Your task to perform on an android device: add a contact in the contacts app Image 0: 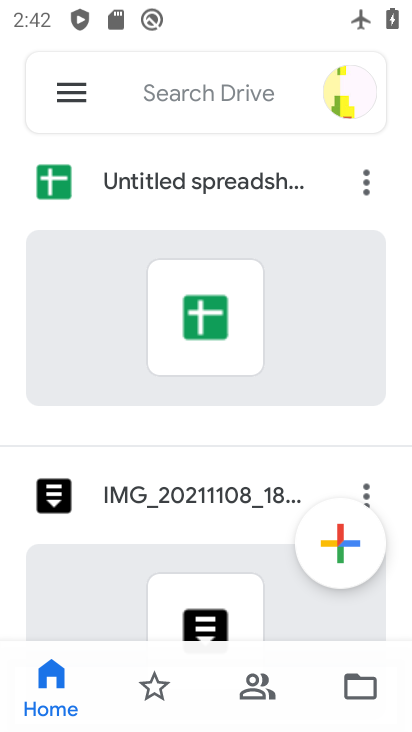
Step 0: press home button
Your task to perform on an android device: add a contact in the contacts app Image 1: 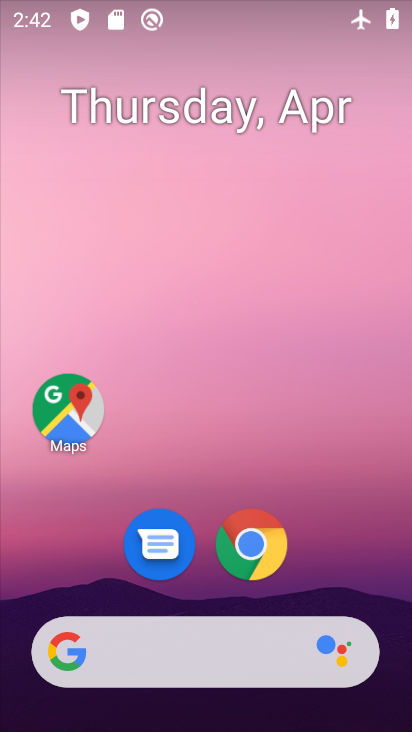
Step 1: drag from (206, 584) to (196, 48)
Your task to perform on an android device: add a contact in the contacts app Image 2: 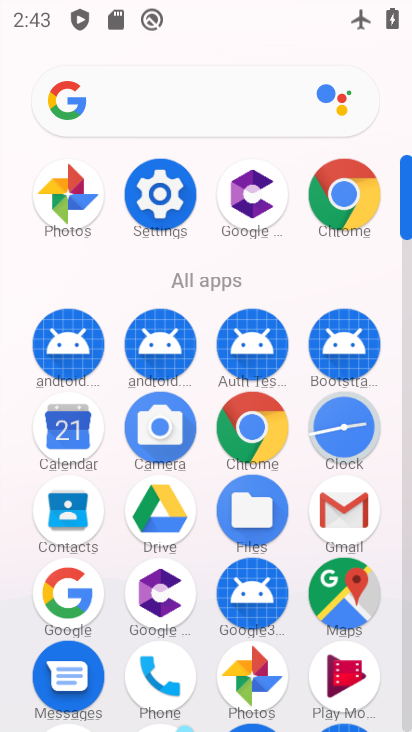
Step 2: click (64, 516)
Your task to perform on an android device: add a contact in the contacts app Image 3: 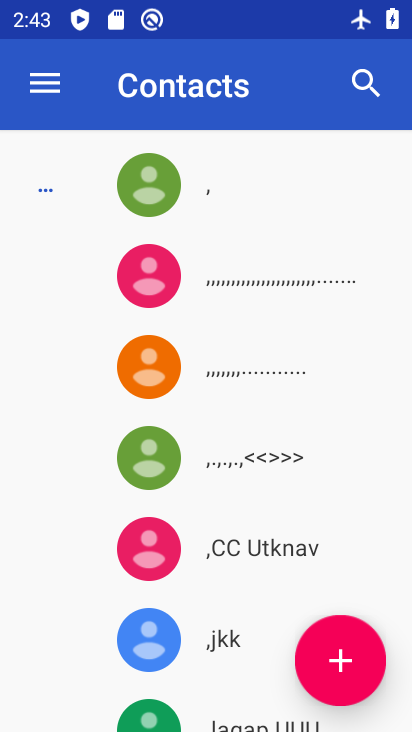
Step 3: click (334, 657)
Your task to perform on an android device: add a contact in the contacts app Image 4: 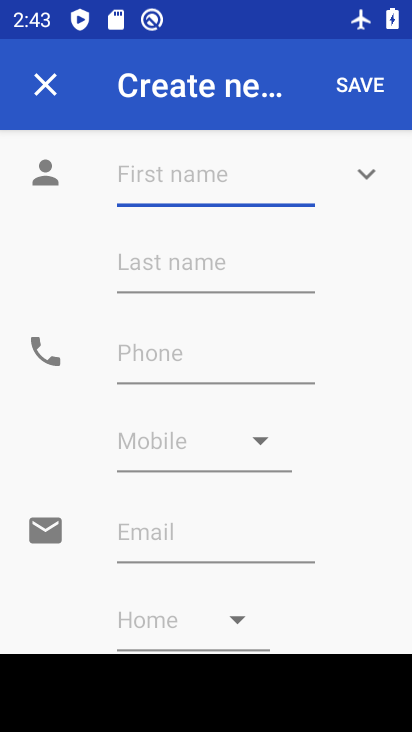
Step 4: type "mhmhvhgf"
Your task to perform on an android device: add a contact in the contacts app Image 5: 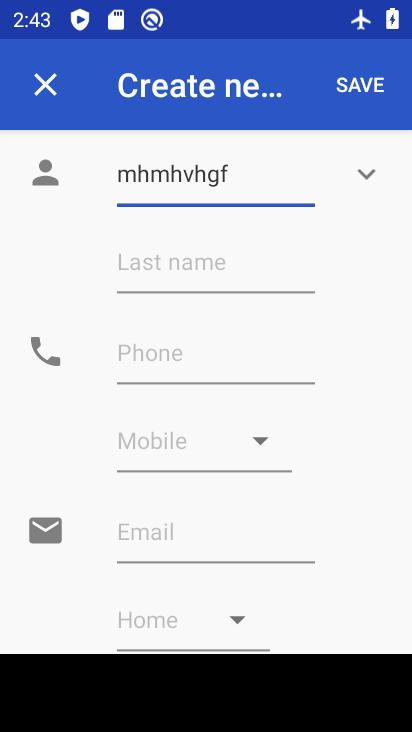
Step 5: click (366, 87)
Your task to perform on an android device: add a contact in the contacts app Image 6: 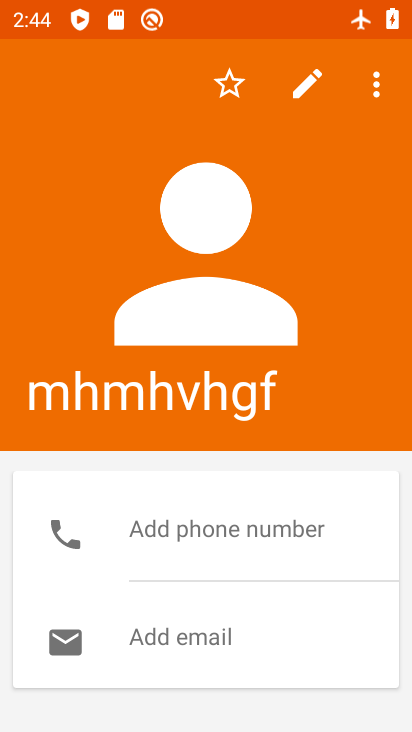
Step 6: task complete